Your task to perform on an android device: delete the emails in spam in the gmail app Image 0: 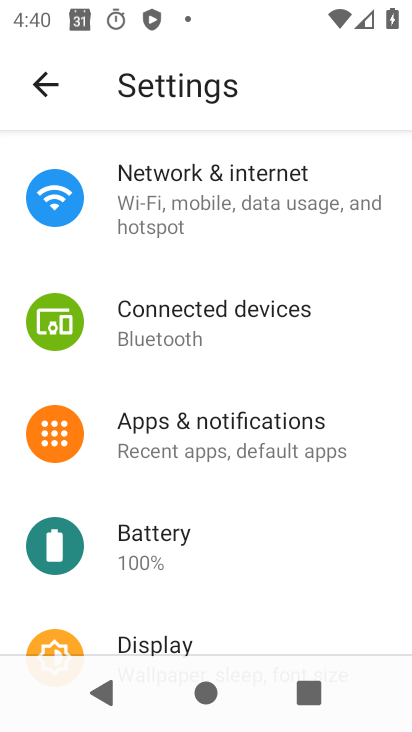
Step 0: press home button
Your task to perform on an android device: delete the emails in spam in the gmail app Image 1: 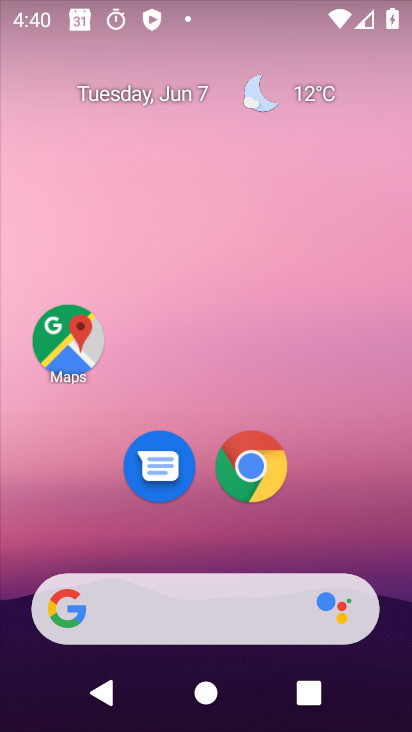
Step 1: drag from (371, 546) to (284, 188)
Your task to perform on an android device: delete the emails in spam in the gmail app Image 2: 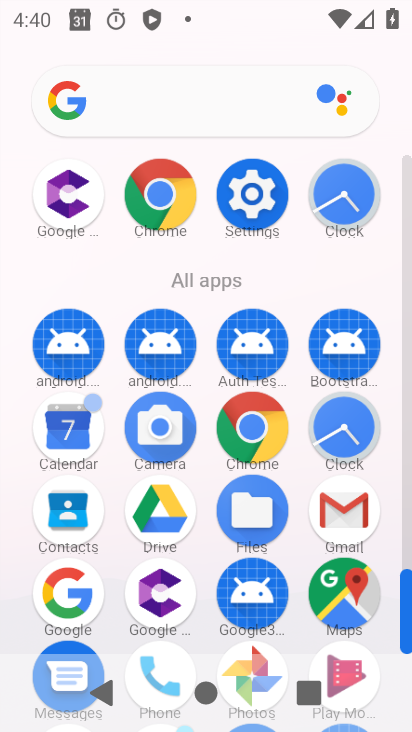
Step 2: click (335, 507)
Your task to perform on an android device: delete the emails in spam in the gmail app Image 3: 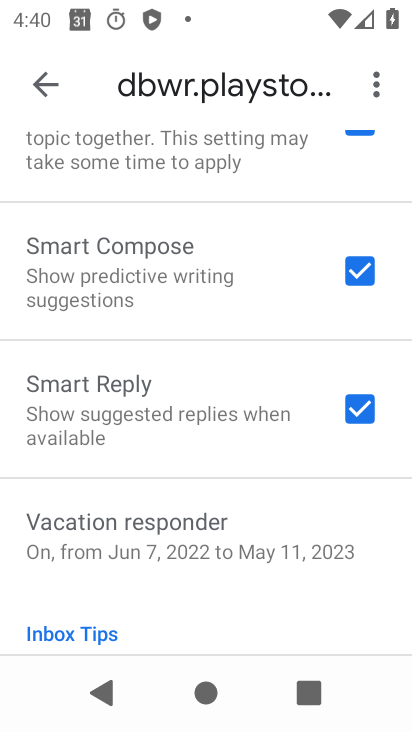
Step 3: click (54, 85)
Your task to perform on an android device: delete the emails in spam in the gmail app Image 4: 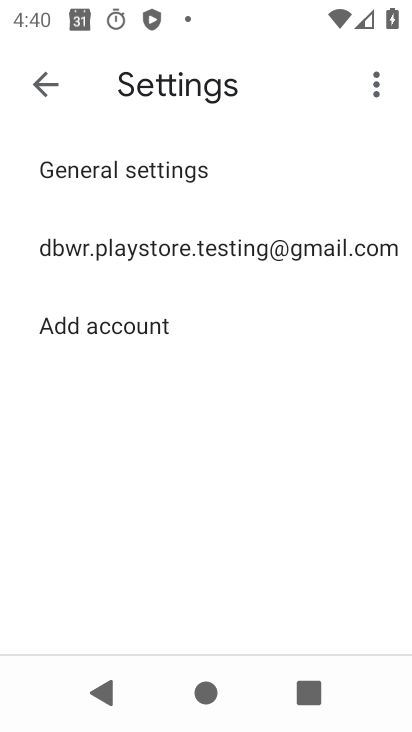
Step 4: click (54, 85)
Your task to perform on an android device: delete the emails in spam in the gmail app Image 5: 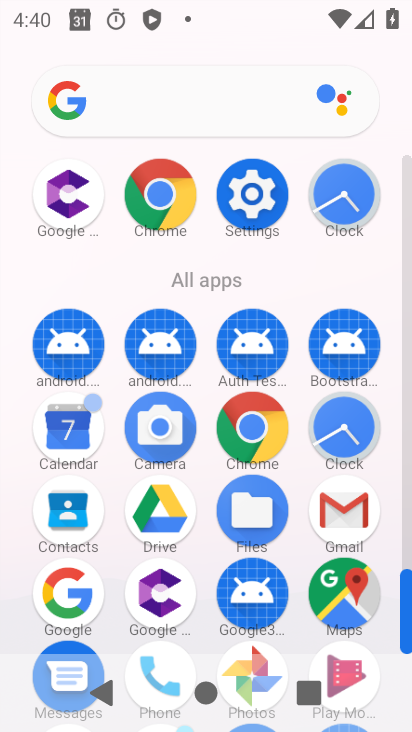
Step 5: click (341, 514)
Your task to perform on an android device: delete the emails in spam in the gmail app Image 6: 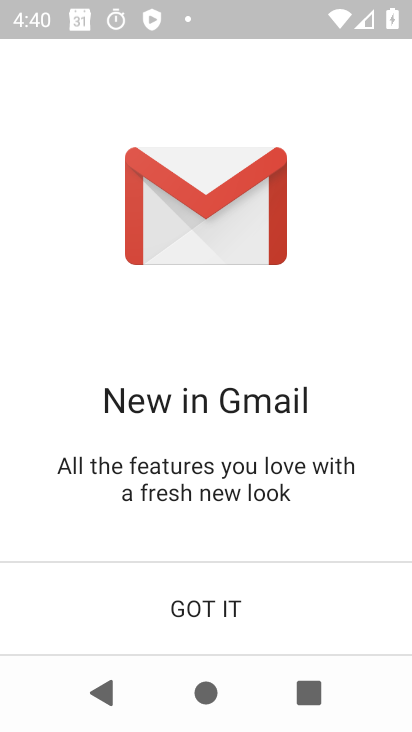
Step 6: click (231, 605)
Your task to perform on an android device: delete the emails in spam in the gmail app Image 7: 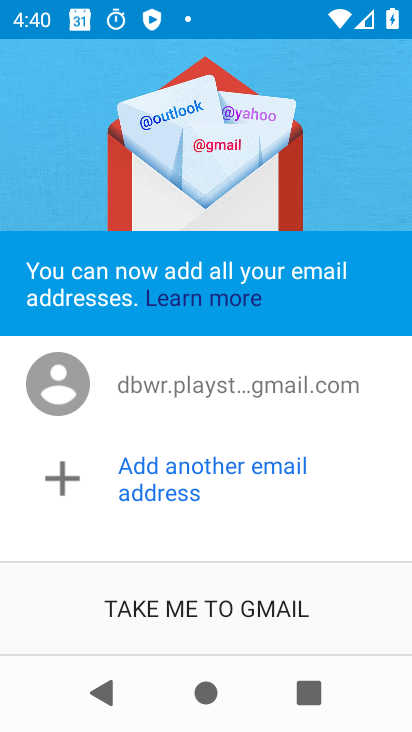
Step 7: click (245, 604)
Your task to perform on an android device: delete the emails in spam in the gmail app Image 8: 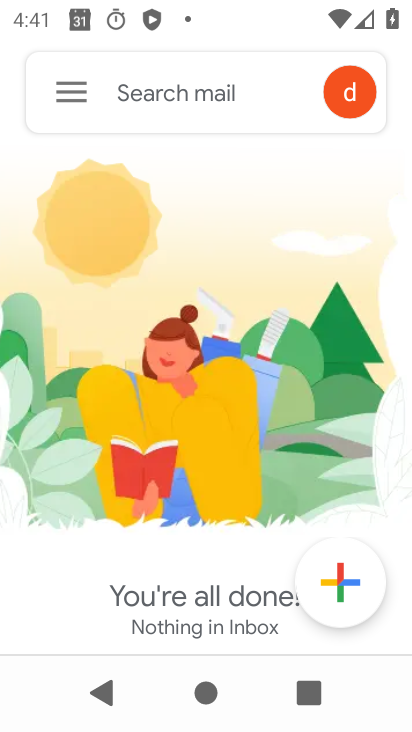
Step 8: click (66, 79)
Your task to perform on an android device: delete the emails in spam in the gmail app Image 9: 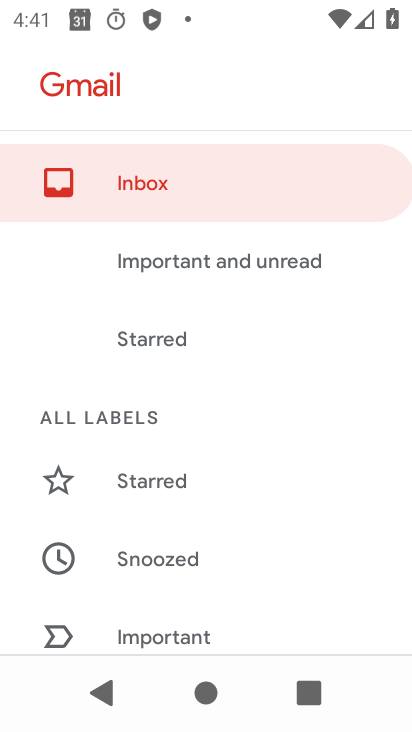
Step 9: drag from (259, 598) to (214, 238)
Your task to perform on an android device: delete the emails in spam in the gmail app Image 10: 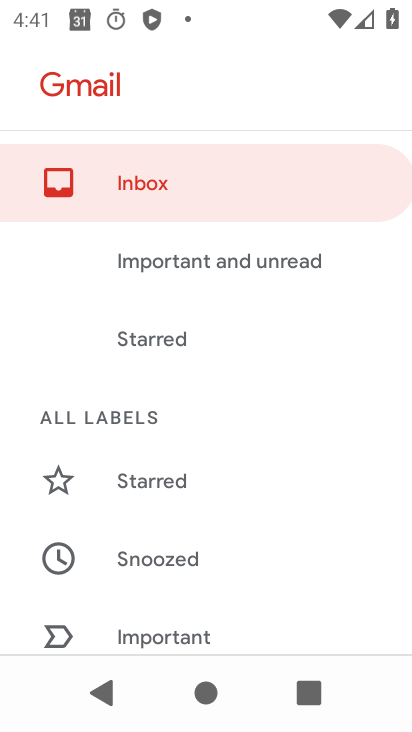
Step 10: drag from (169, 602) to (188, 132)
Your task to perform on an android device: delete the emails in spam in the gmail app Image 11: 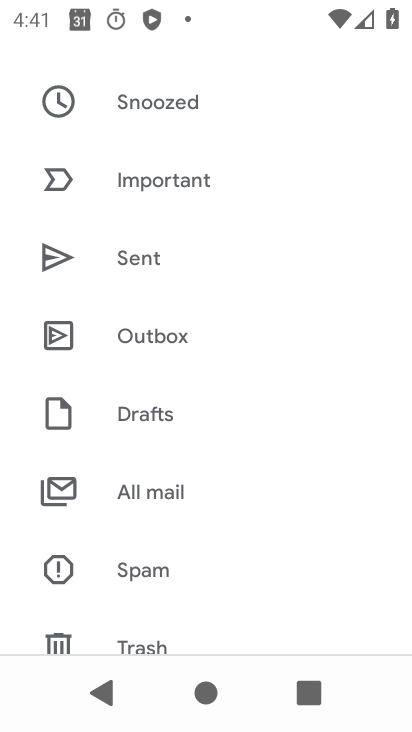
Step 11: click (181, 578)
Your task to perform on an android device: delete the emails in spam in the gmail app Image 12: 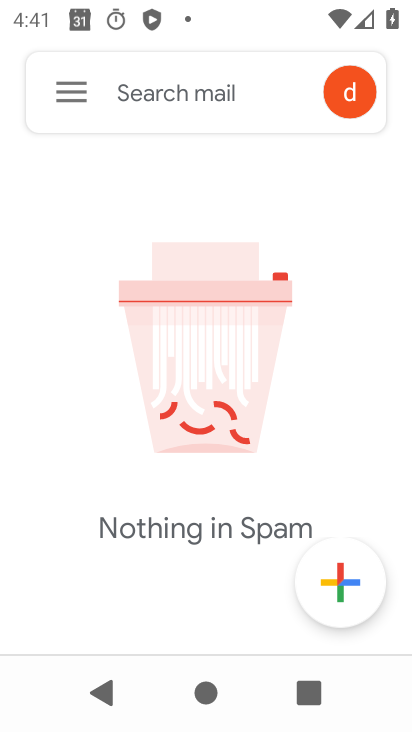
Step 12: task complete